Your task to perform on an android device: open the mobile data screen to see how much data has been used Image 0: 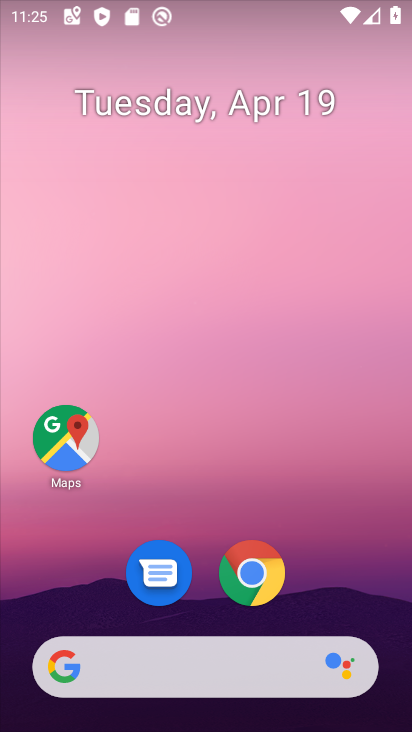
Step 0: click (333, 195)
Your task to perform on an android device: open the mobile data screen to see how much data has been used Image 1: 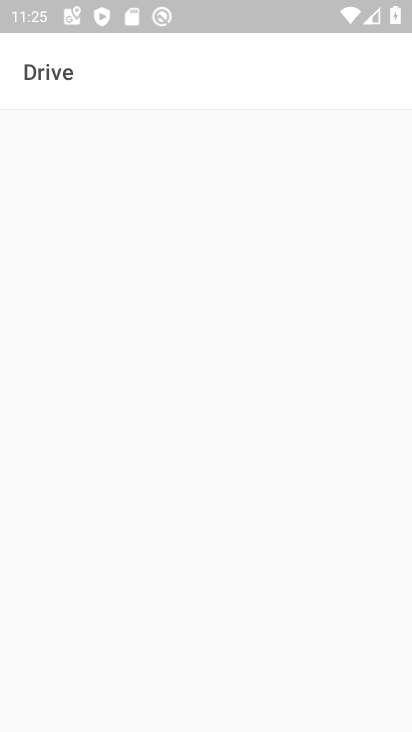
Step 1: press home button
Your task to perform on an android device: open the mobile data screen to see how much data has been used Image 2: 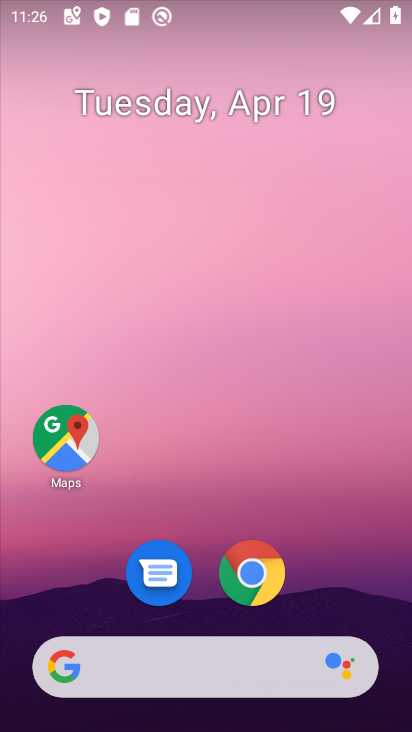
Step 2: drag from (323, 606) to (346, 132)
Your task to perform on an android device: open the mobile data screen to see how much data has been used Image 3: 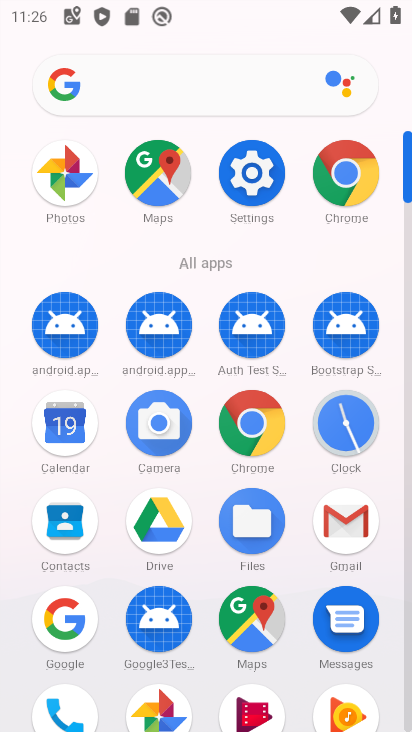
Step 3: click (237, 187)
Your task to perform on an android device: open the mobile data screen to see how much data has been used Image 4: 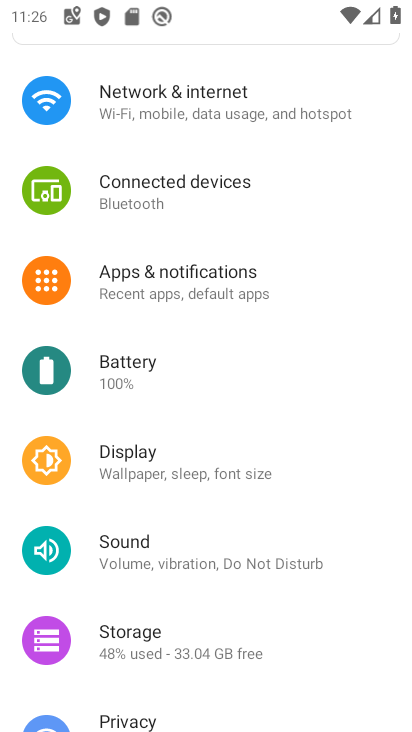
Step 4: click (281, 127)
Your task to perform on an android device: open the mobile data screen to see how much data has been used Image 5: 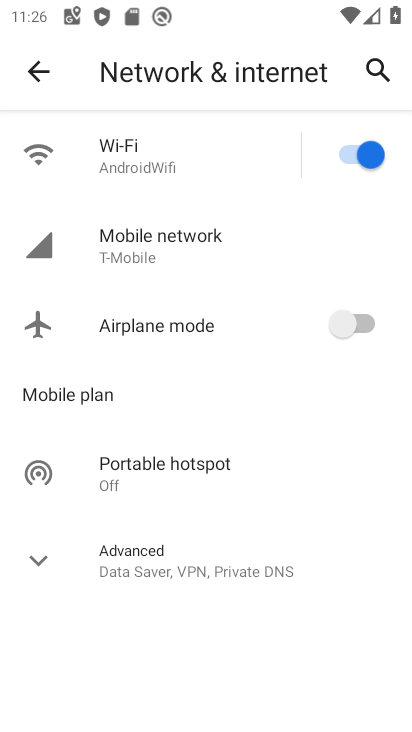
Step 5: click (175, 261)
Your task to perform on an android device: open the mobile data screen to see how much data has been used Image 6: 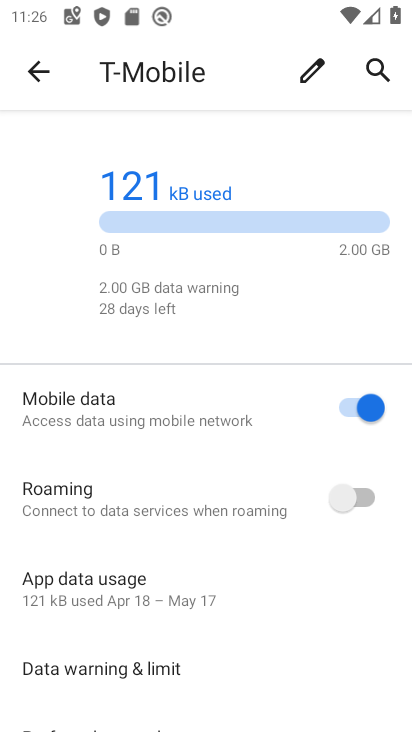
Step 6: click (116, 595)
Your task to perform on an android device: open the mobile data screen to see how much data has been used Image 7: 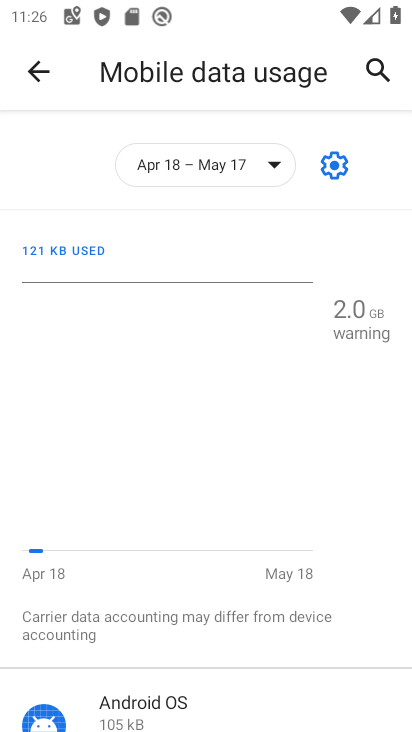
Step 7: task complete